Your task to perform on an android device: Open the phone app and click the voicemail tab. Image 0: 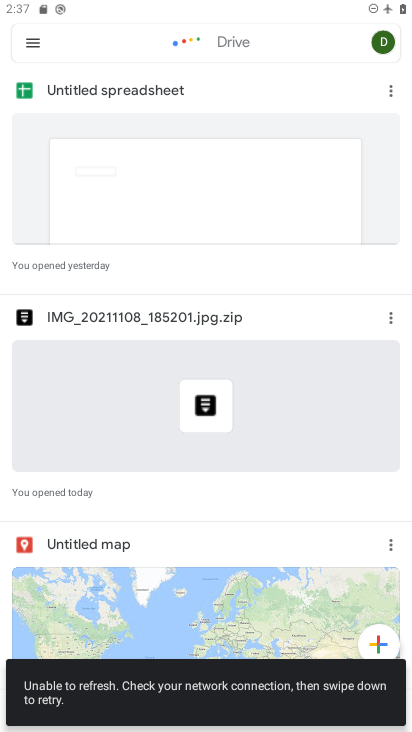
Step 0: drag from (232, 499) to (180, 94)
Your task to perform on an android device: Open the phone app and click the voicemail tab. Image 1: 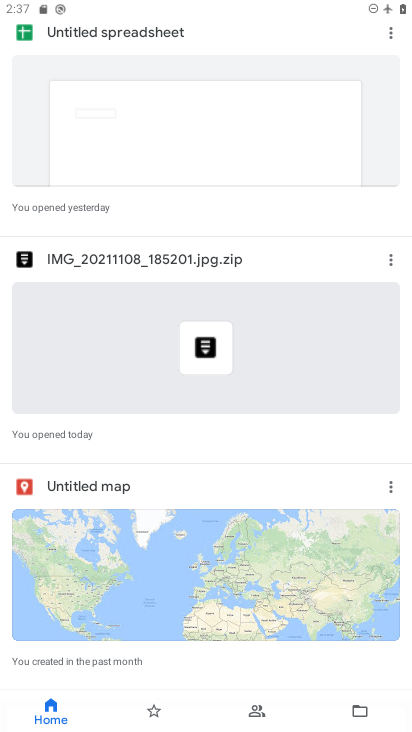
Step 1: press home button
Your task to perform on an android device: Open the phone app and click the voicemail tab. Image 2: 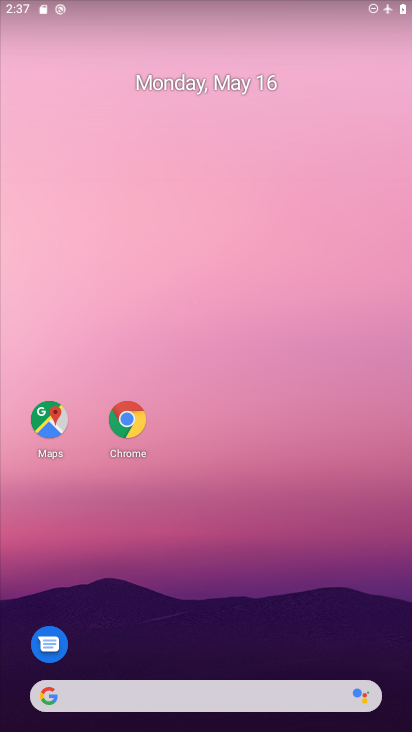
Step 2: drag from (192, 588) to (108, 118)
Your task to perform on an android device: Open the phone app and click the voicemail tab. Image 3: 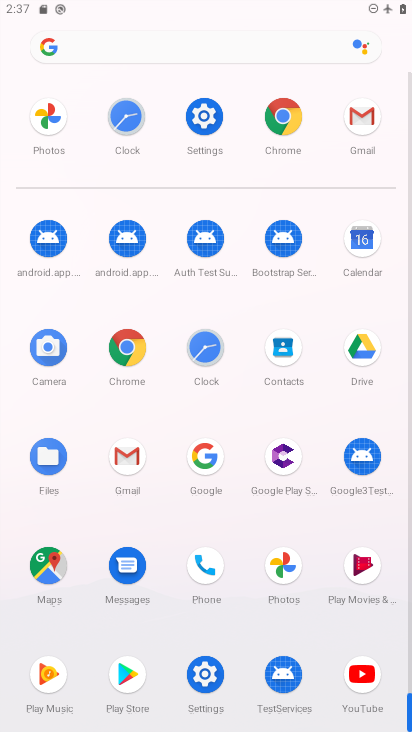
Step 3: click (203, 563)
Your task to perform on an android device: Open the phone app and click the voicemail tab. Image 4: 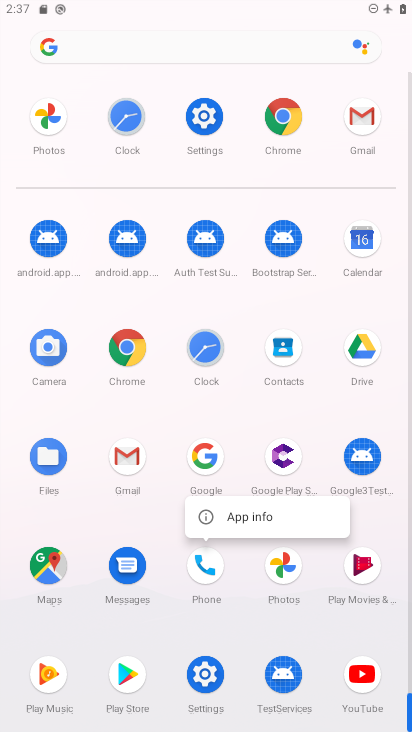
Step 4: click (236, 517)
Your task to perform on an android device: Open the phone app and click the voicemail tab. Image 5: 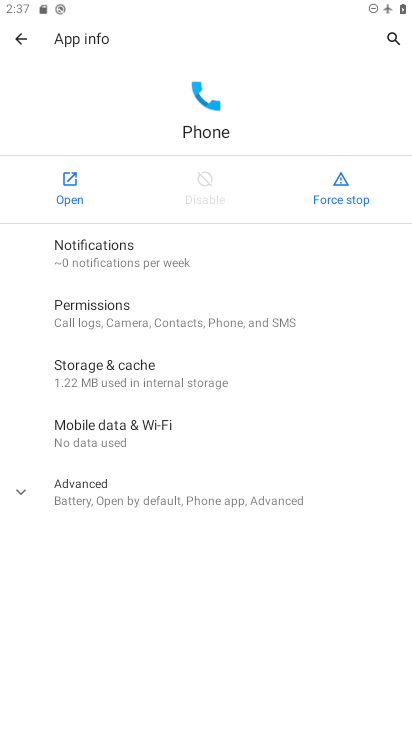
Step 5: click (56, 189)
Your task to perform on an android device: Open the phone app and click the voicemail tab. Image 6: 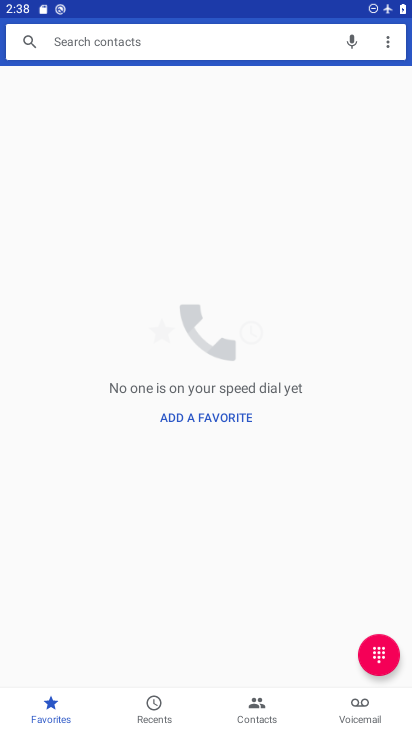
Step 6: click (363, 709)
Your task to perform on an android device: Open the phone app and click the voicemail tab. Image 7: 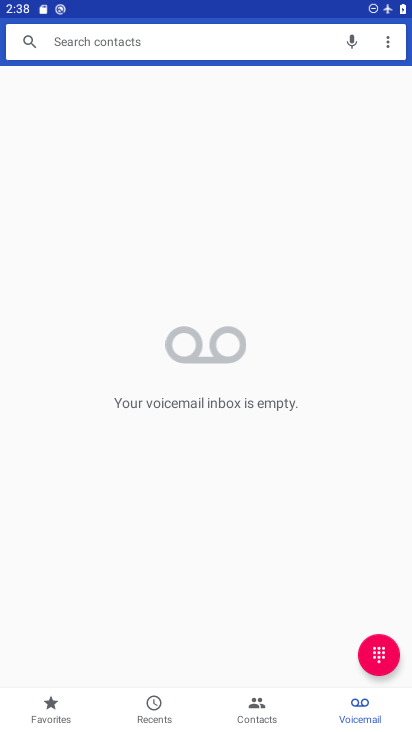
Step 7: click (358, 706)
Your task to perform on an android device: Open the phone app and click the voicemail tab. Image 8: 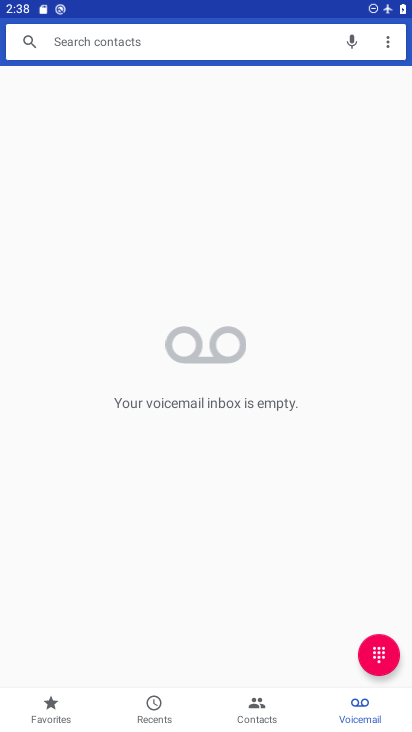
Step 8: task complete